Your task to perform on an android device: turn smart compose on in the gmail app Image 0: 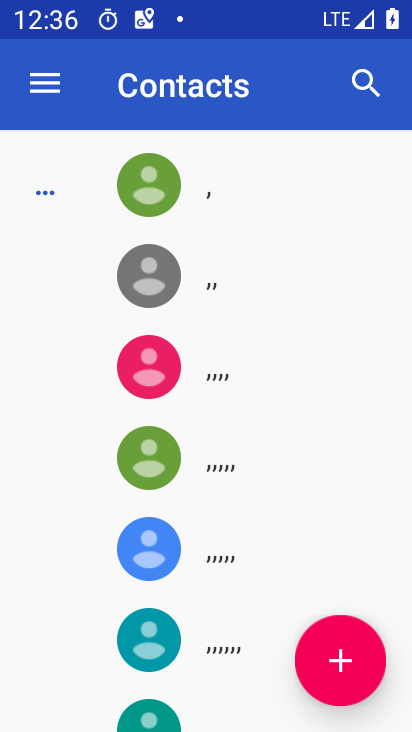
Step 0: press home button
Your task to perform on an android device: turn smart compose on in the gmail app Image 1: 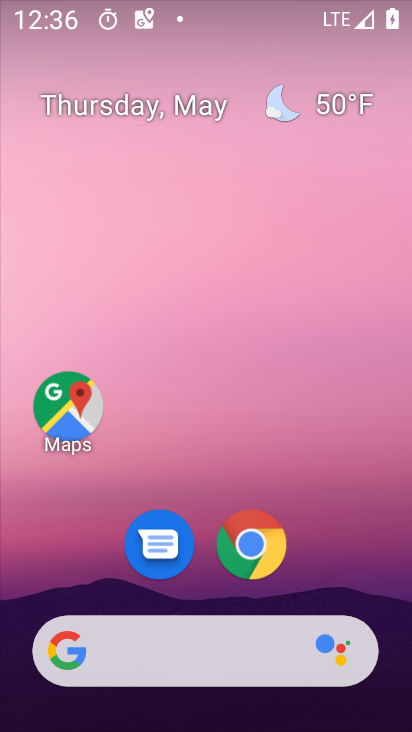
Step 1: drag from (187, 635) to (302, 39)
Your task to perform on an android device: turn smart compose on in the gmail app Image 2: 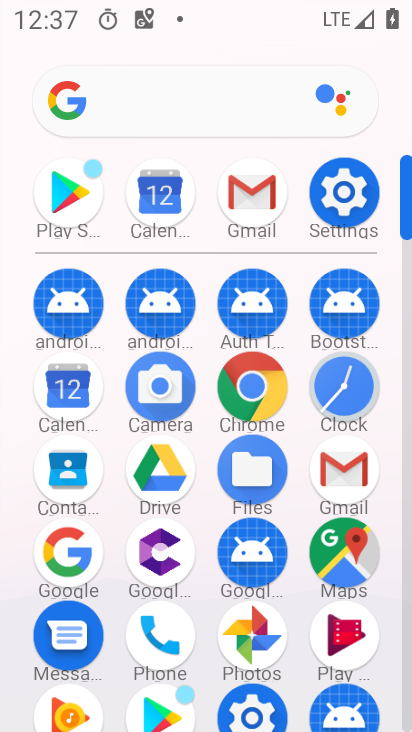
Step 2: click (334, 488)
Your task to perform on an android device: turn smart compose on in the gmail app Image 3: 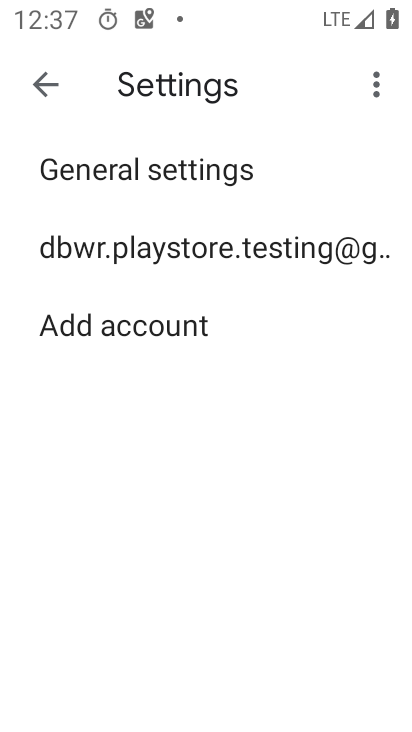
Step 3: click (148, 243)
Your task to perform on an android device: turn smart compose on in the gmail app Image 4: 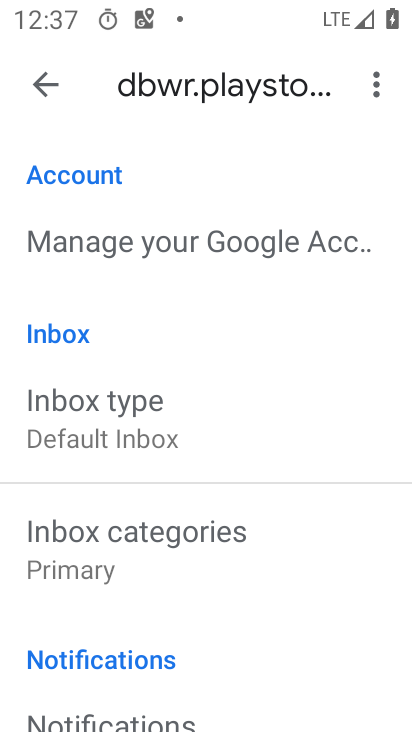
Step 4: task complete